Your task to perform on an android device: Open settings on Google Maps Image 0: 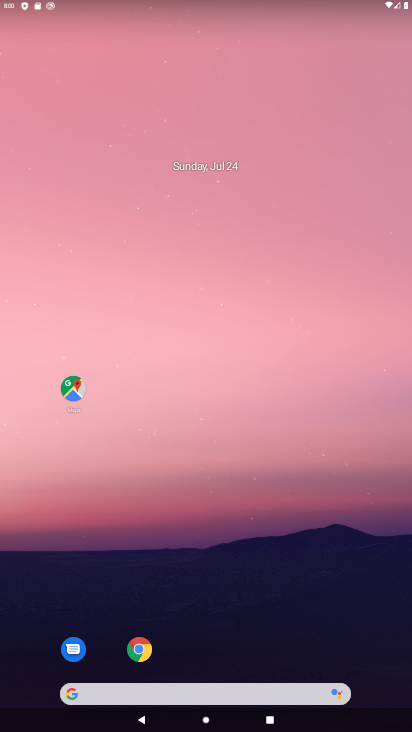
Step 0: drag from (197, 673) to (123, 62)
Your task to perform on an android device: Open settings on Google Maps Image 1: 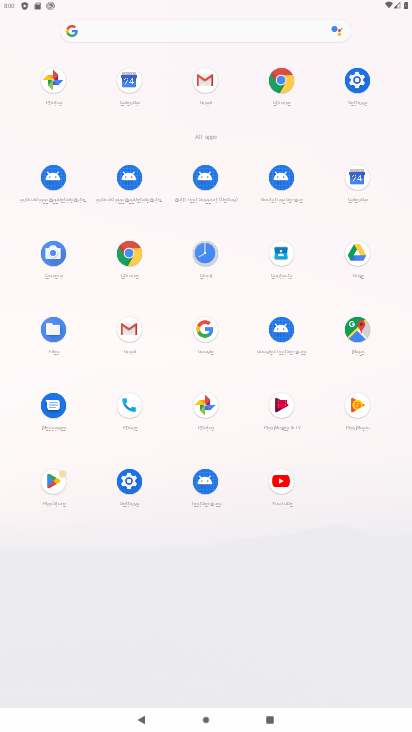
Step 1: click (358, 336)
Your task to perform on an android device: Open settings on Google Maps Image 2: 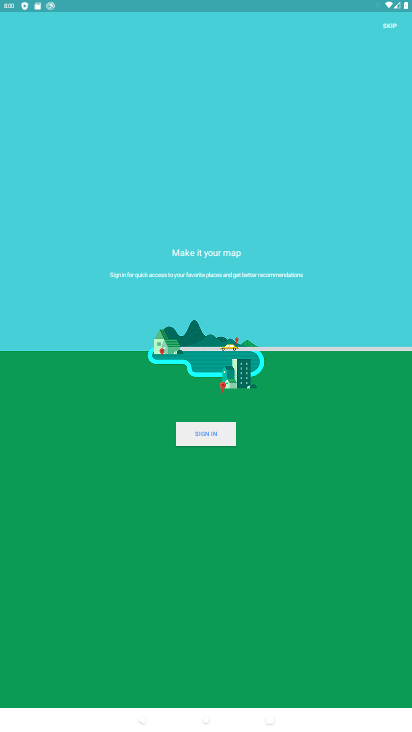
Step 2: click (211, 436)
Your task to perform on an android device: Open settings on Google Maps Image 3: 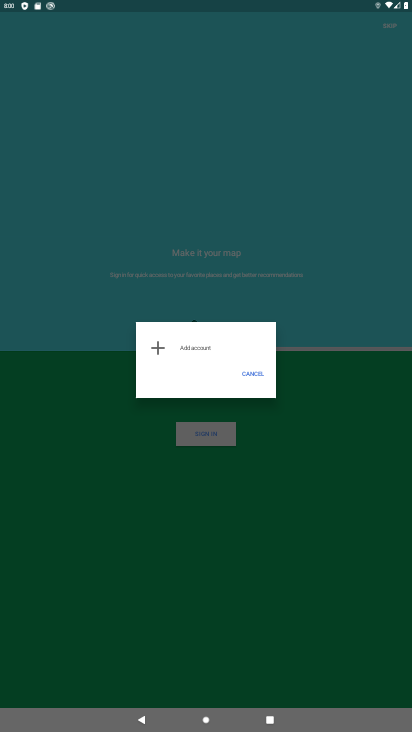
Step 3: task complete